Your task to perform on an android device: Open sound settings Image 0: 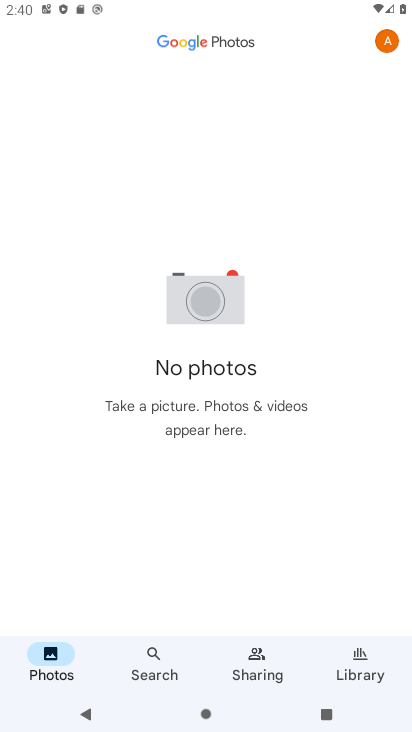
Step 0: press home button
Your task to perform on an android device: Open sound settings Image 1: 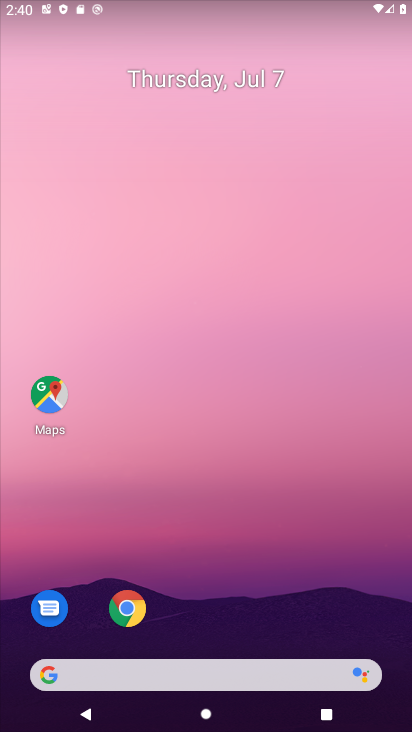
Step 1: drag from (377, 638) to (332, 156)
Your task to perform on an android device: Open sound settings Image 2: 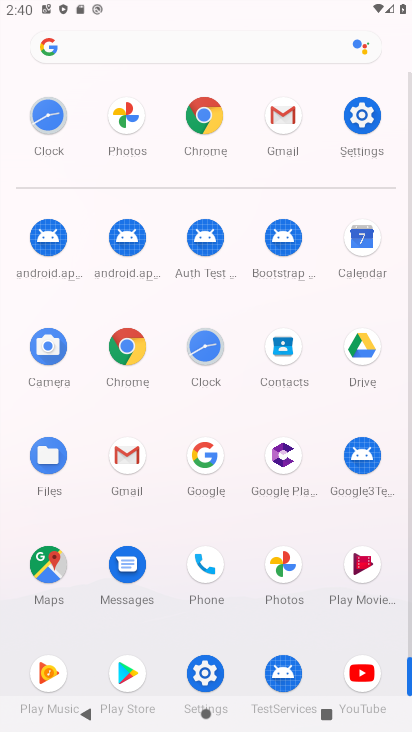
Step 2: click (411, 635)
Your task to perform on an android device: Open sound settings Image 3: 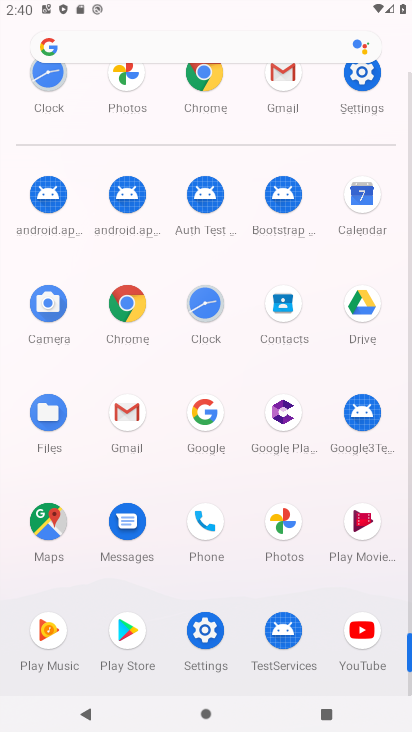
Step 3: click (207, 629)
Your task to perform on an android device: Open sound settings Image 4: 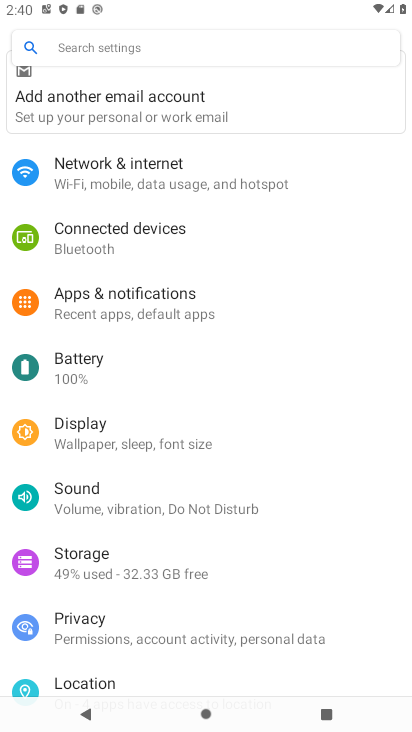
Step 4: click (84, 496)
Your task to perform on an android device: Open sound settings Image 5: 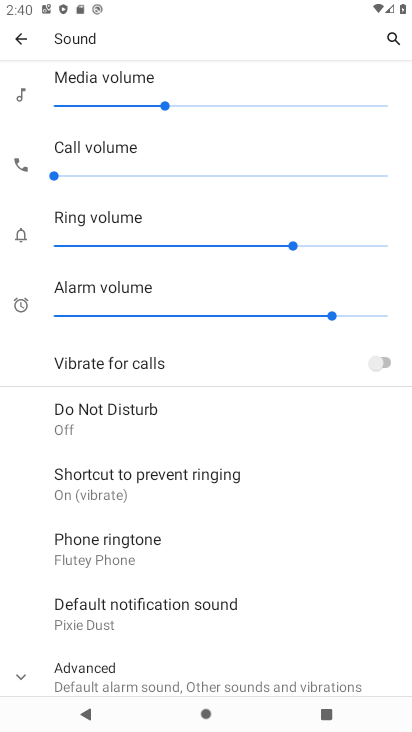
Step 5: drag from (392, 602) to (363, 285)
Your task to perform on an android device: Open sound settings Image 6: 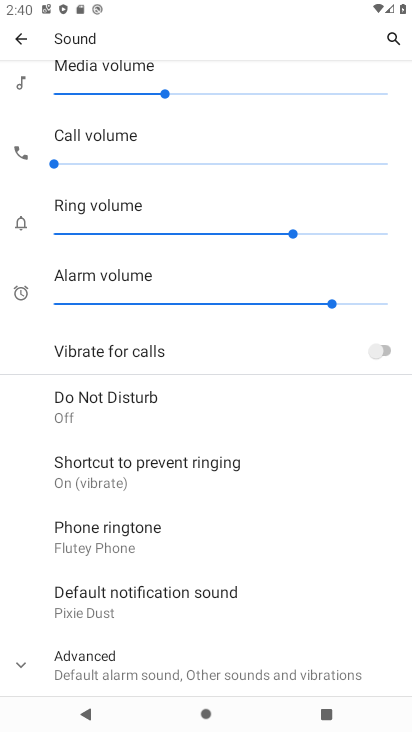
Step 6: click (13, 662)
Your task to perform on an android device: Open sound settings Image 7: 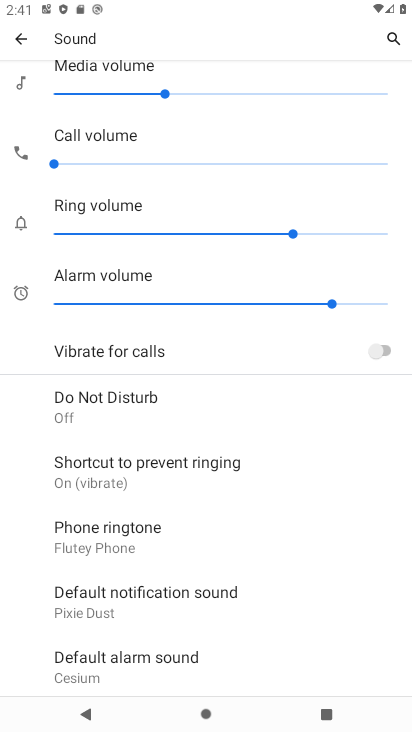
Step 7: task complete